Your task to perform on an android device: Open internet settings Image 0: 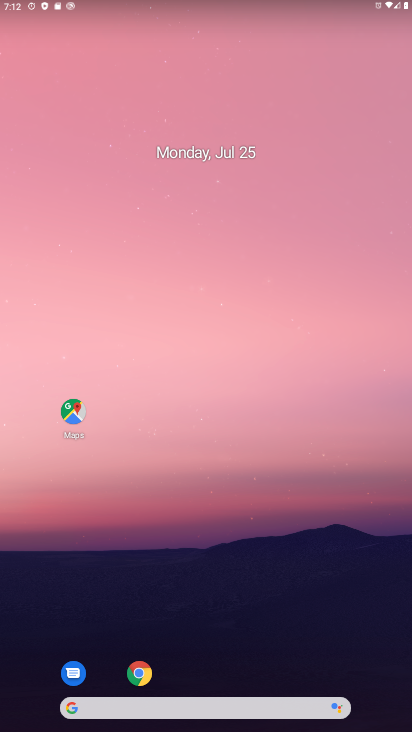
Step 0: drag from (301, 655) to (14, 9)
Your task to perform on an android device: Open internet settings Image 1: 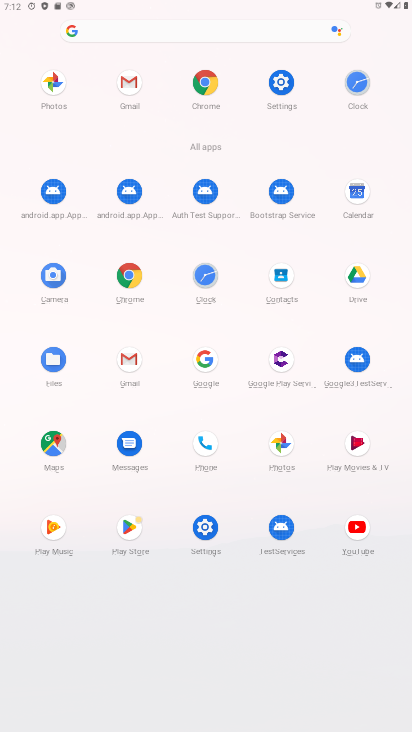
Step 1: click (281, 80)
Your task to perform on an android device: Open internet settings Image 2: 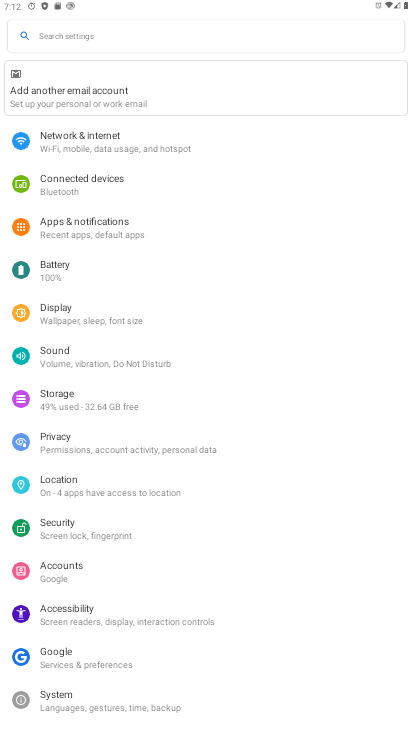
Step 2: click (105, 152)
Your task to perform on an android device: Open internet settings Image 3: 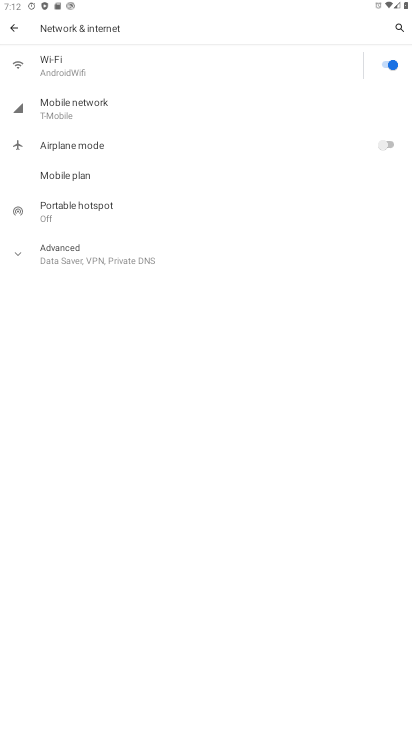
Step 3: task complete